Your task to perform on an android device: turn on javascript in the chrome app Image 0: 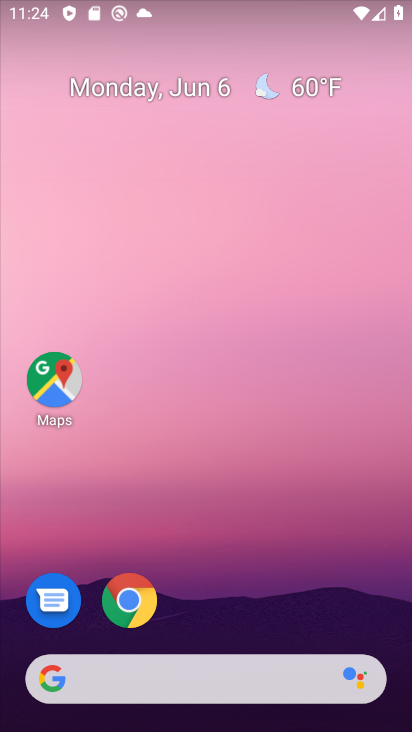
Step 0: click (128, 602)
Your task to perform on an android device: turn on javascript in the chrome app Image 1: 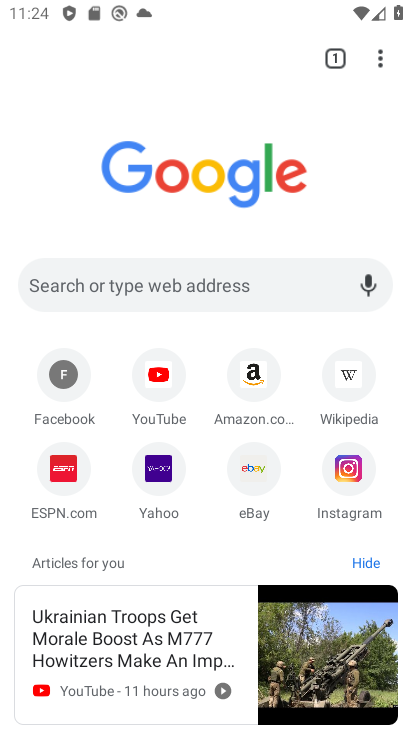
Step 1: click (380, 62)
Your task to perform on an android device: turn on javascript in the chrome app Image 2: 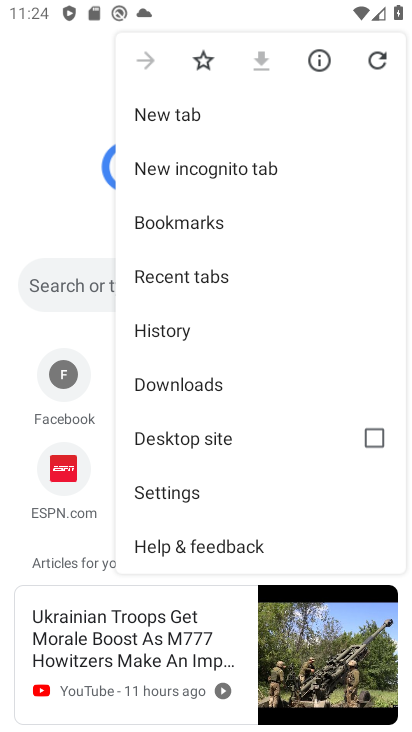
Step 2: click (176, 494)
Your task to perform on an android device: turn on javascript in the chrome app Image 3: 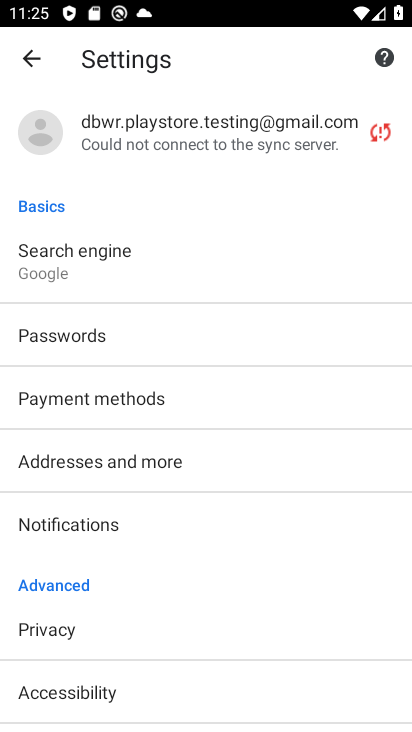
Step 3: drag from (120, 698) to (118, 238)
Your task to perform on an android device: turn on javascript in the chrome app Image 4: 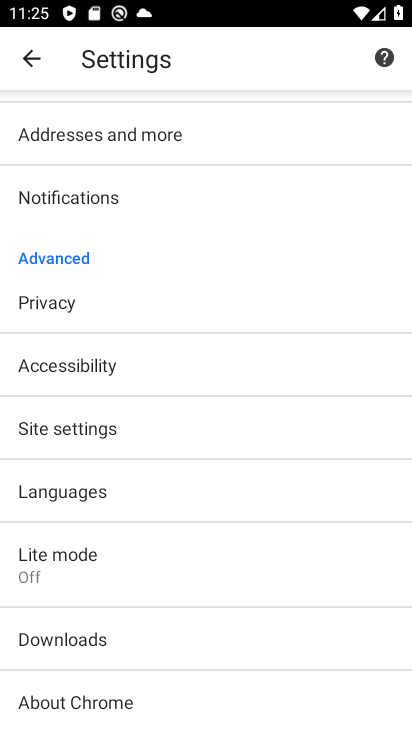
Step 4: click (93, 428)
Your task to perform on an android device: turn on javascript in the chrome app Image 5: 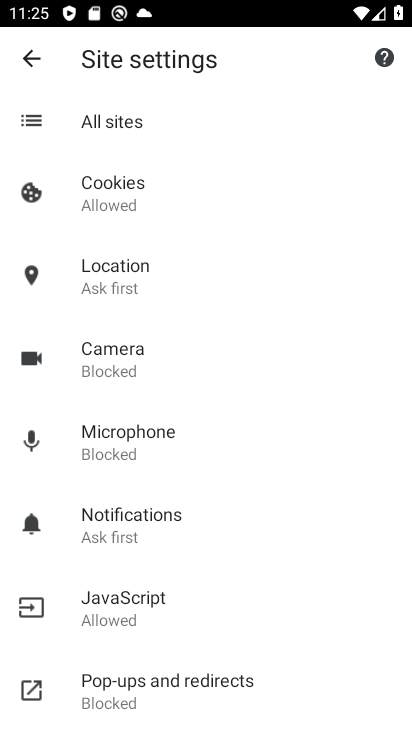
Step 5: click (122, 601)
Your task to perform on an android device: turn on javascript in the chrome app Image 6: 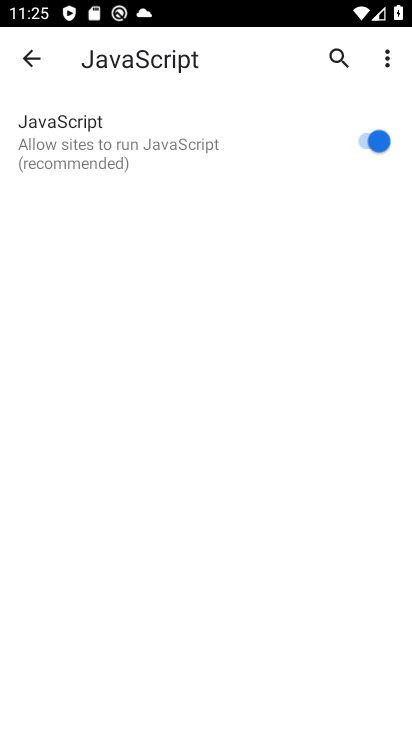
Step 6: task complete